Your task to perform on an android device: Open calendar and show me the third week of next month Image 0: 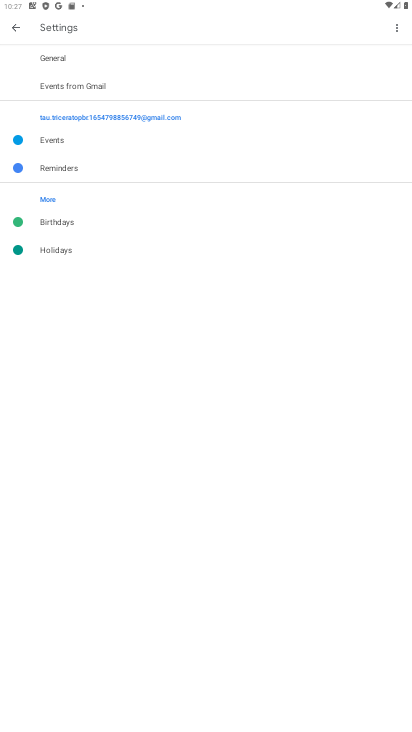
Step 0: press home button
Your task to perform on an android device: Open calendar and show me the third week of next month Image 1: 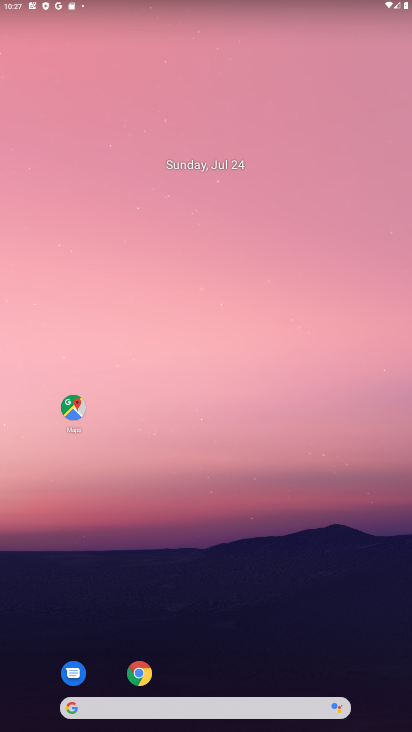
Step 1: drag from (33, 695) to (253, 243)
Your task to perform on an android device: Open calendar and show me the third week of next month Image 2: 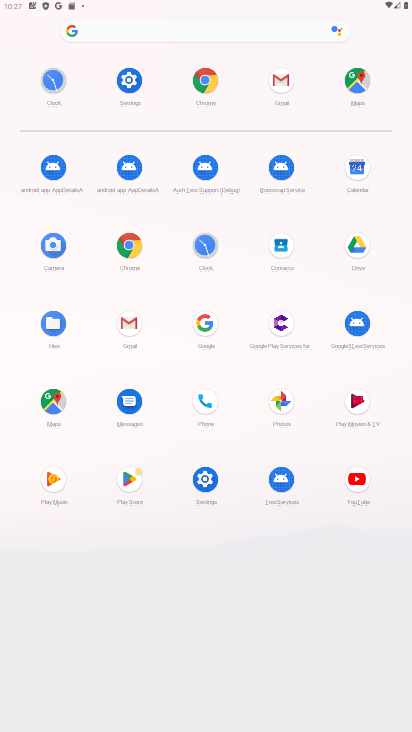
Step 2: click (374, 163)
Your task to perform on an android device: Open calendar and show me the third week of next month Image 3: 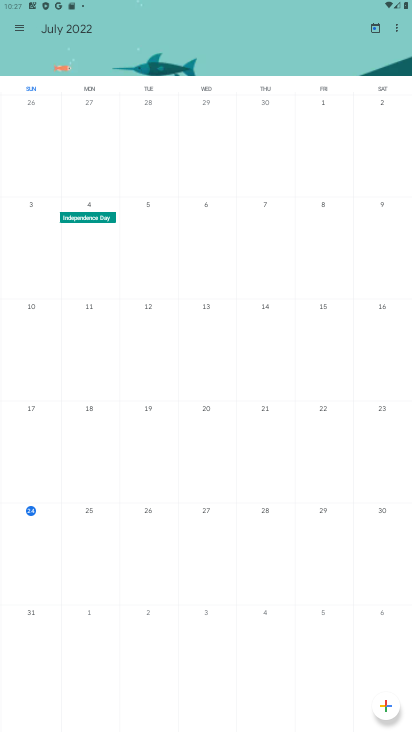
Step 3: drag from (187, 257) to (17, 248)
Your task to perform on an android device: Open calendar and show me the third week of next month Image 4: 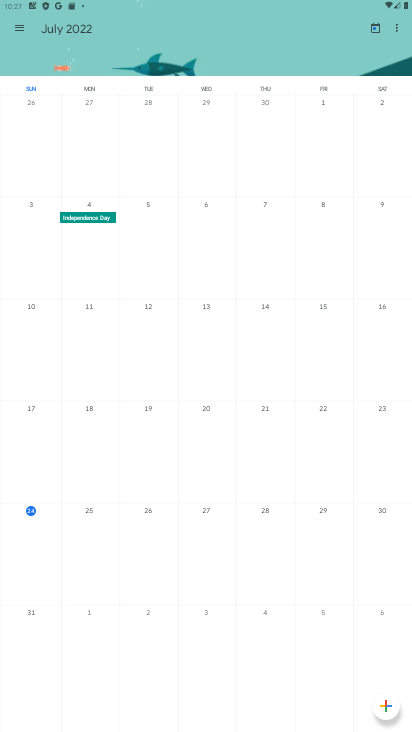
Step 4: click (7, 29)
Your task to perform on an android device: Open calendar and show me the third week of next month Image 5: 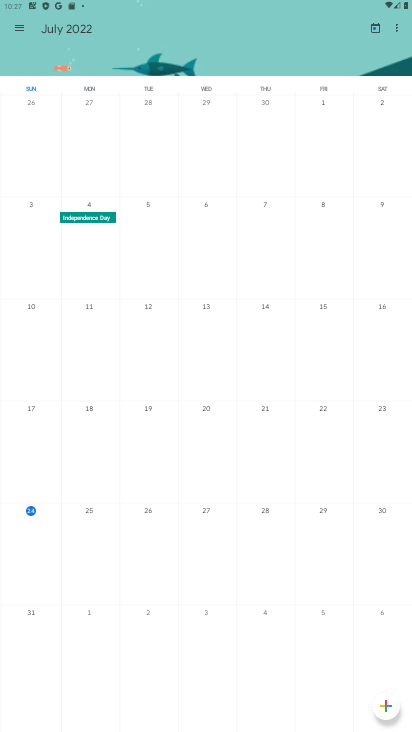
Step 5: click (19, 25)
Your task to perform on an android device: Open calendar and show me the third week of next month Image 6: 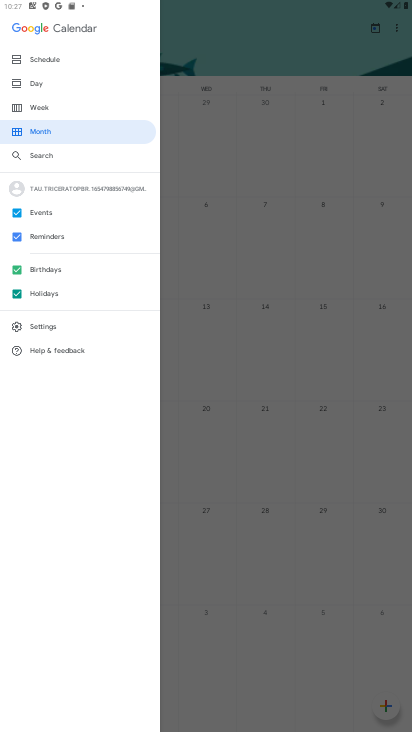
Step 6: click (249, 102)
Your task to perform on an android device: Open calendar and show me the third week of next month Image 7: 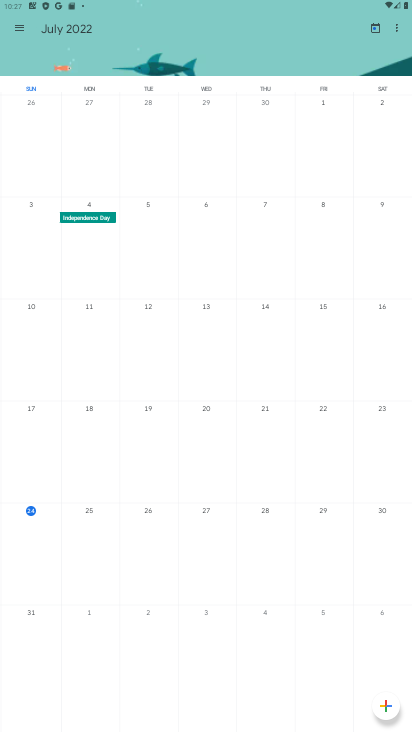
Step 7: drag from (374, 349) to (61, 415)
Your task to perform on an android device: Open calendar and show me the third week of next month Image 8: 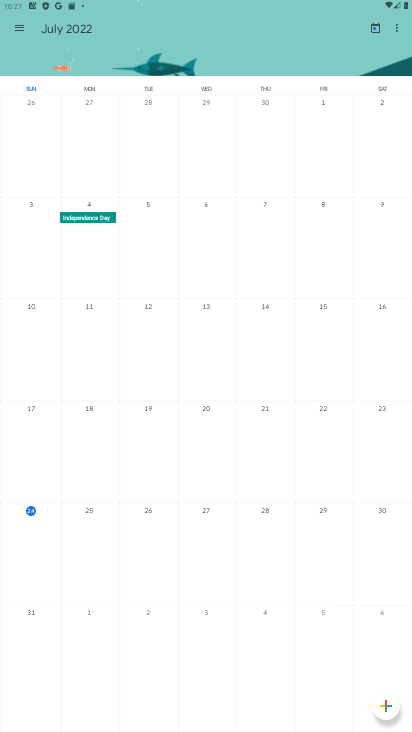
Step 8: drag from (406, 149) to (169, 140)
Your task to perform on an android device: Open calendar and show me the third week of next month Image 9: 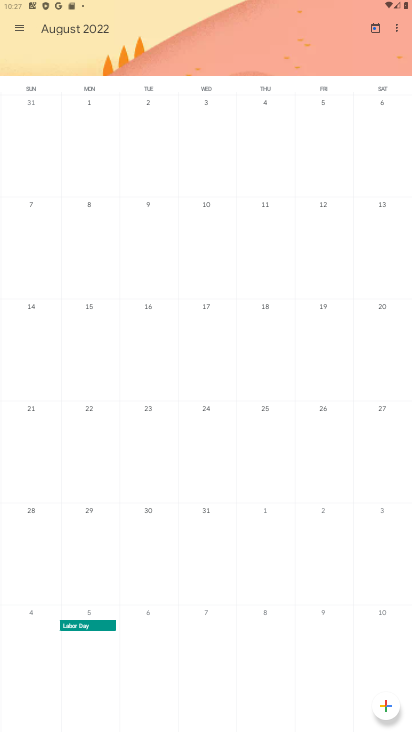
Step 9: click (87, 312)
Your task to perform on an android device: Open calendar and show me the third week of next month Image 10: 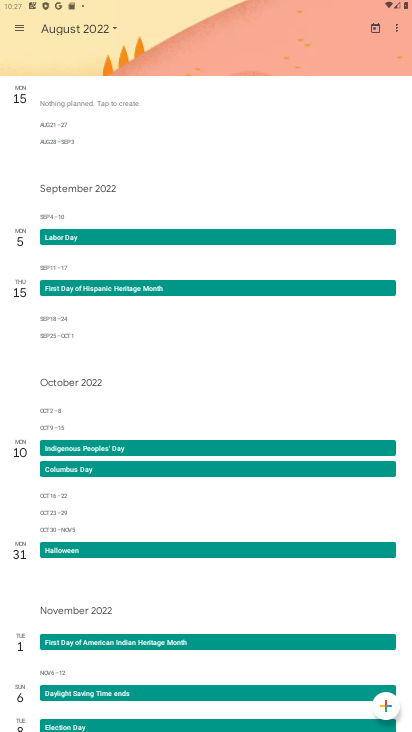
Step 10: task complete